Your task to perform on an android device: Open eBay Image 0: 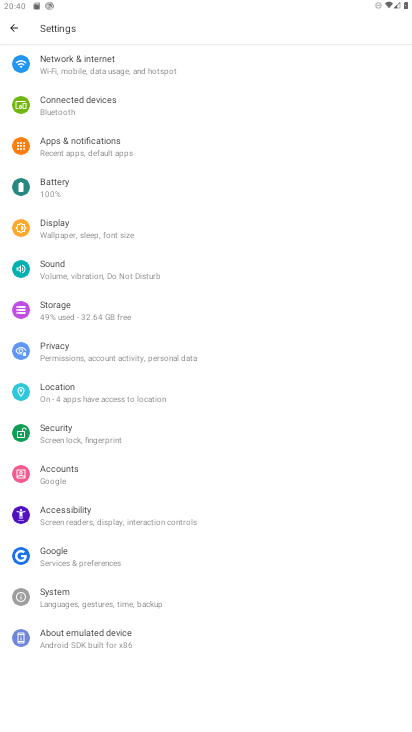
Step 0: press home button
Your task to perform on an android device: Open eBay Image 1: 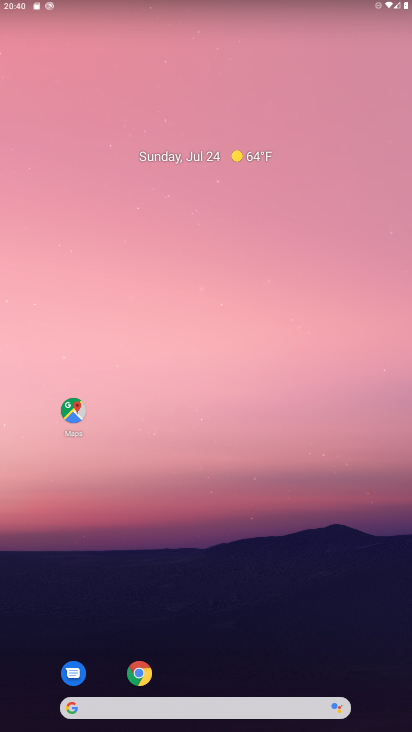
Step 1: click (138, 667)
Your task to perform on an android device: Open eBay Image 2: 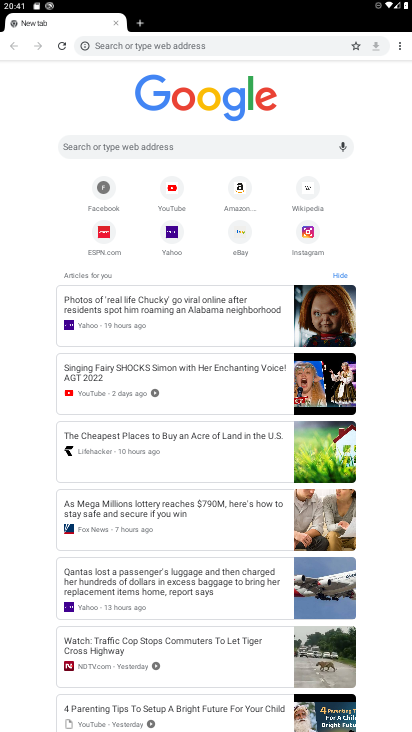
Step 2: click (239, 233)
Your task to perform on an android device: Open eBay Image 3: 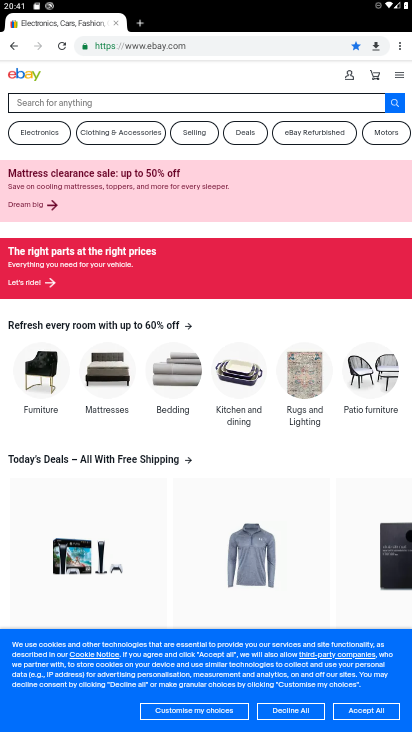
Step 3: task complete